Your task to perform on an android device: Open the calendar and show me this week's events? Image 0: 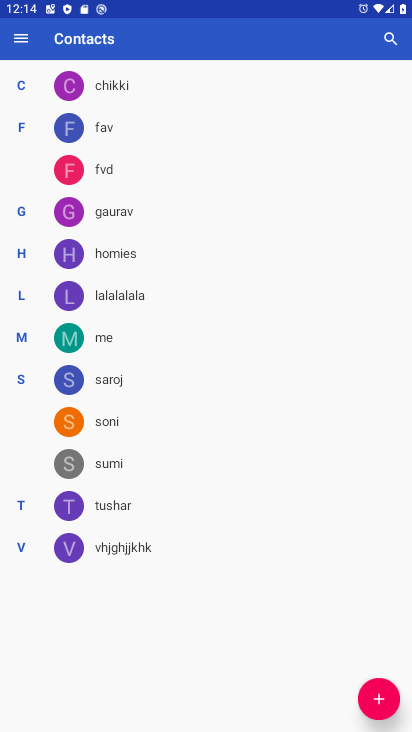
Step 0: press home button
Your task to perform on an android device: Open the calendar and show me this week's events? Image 1: 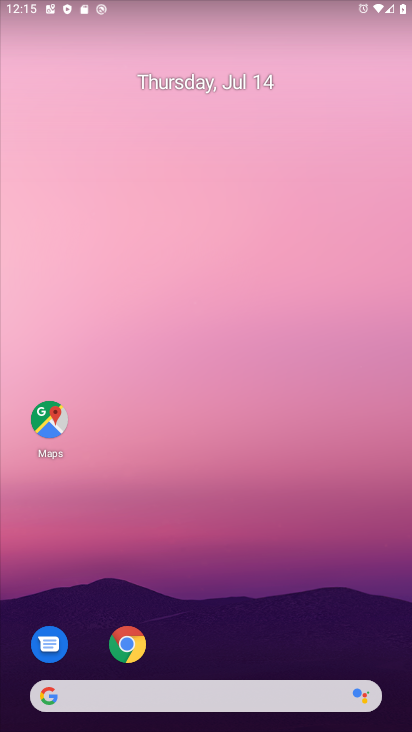
Step 1: drag from (180, 661) to (149, 184)
Your task to perform on an android device: Open the calendar and show me this week's events? Image 2: 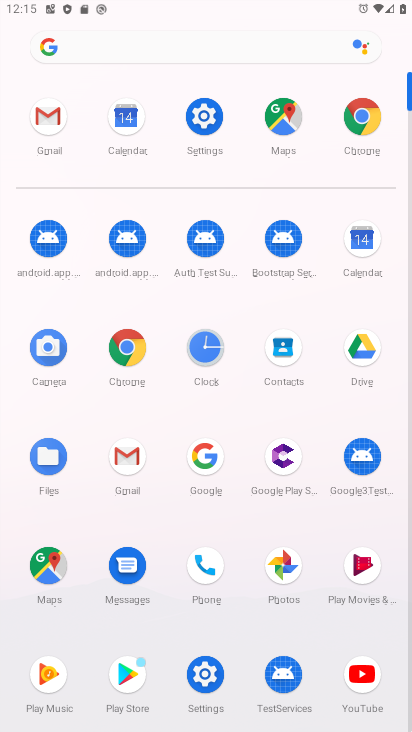
Step 2: click (124, 132)
Your task to perform on an android device: Open the calendar and show me this week's events? Image 3: 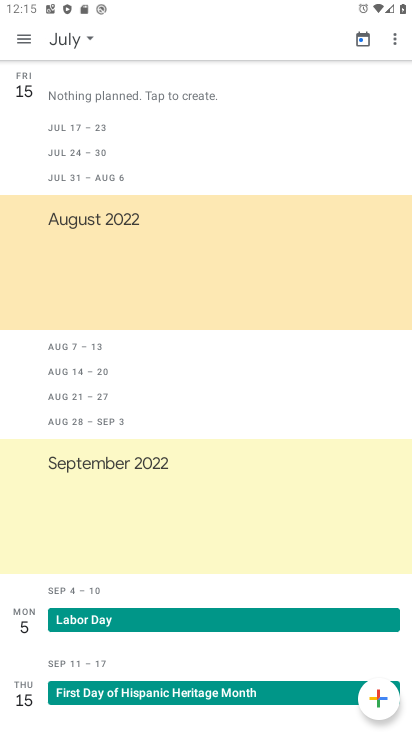
Step 3: click (14, 36)
Your task to perform on an android device: Open the calendar and show me this week's events? Image 4: 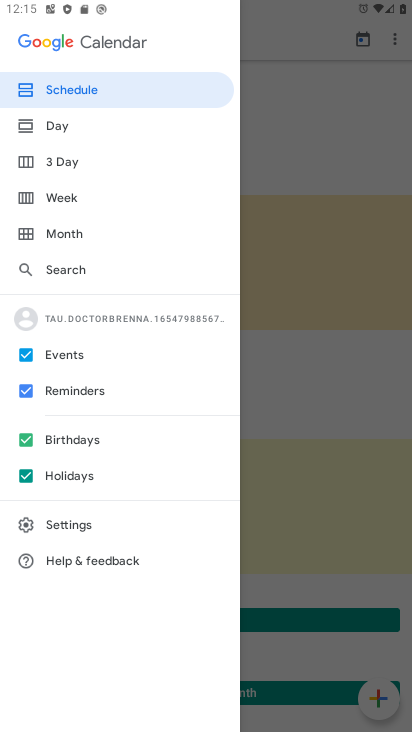
Step 4: click (51, 187)
Your task to perform on an android device: Open the calendar and show me this week's events? Image 5: 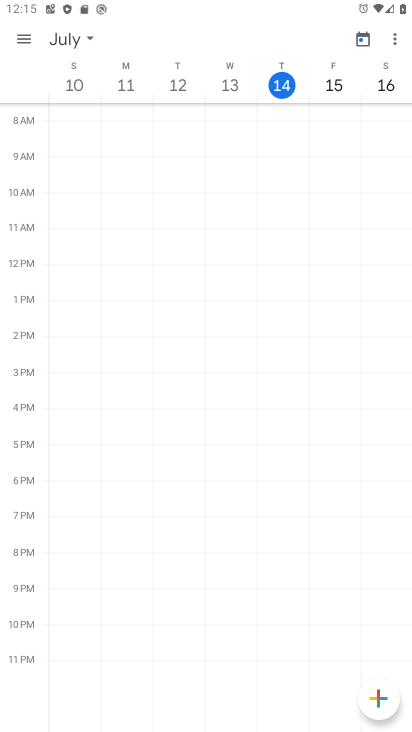
Step 5: task complete